Your task to perform on an android device: open app "Messages" (install if not already installed) and go to login screen Image 0: 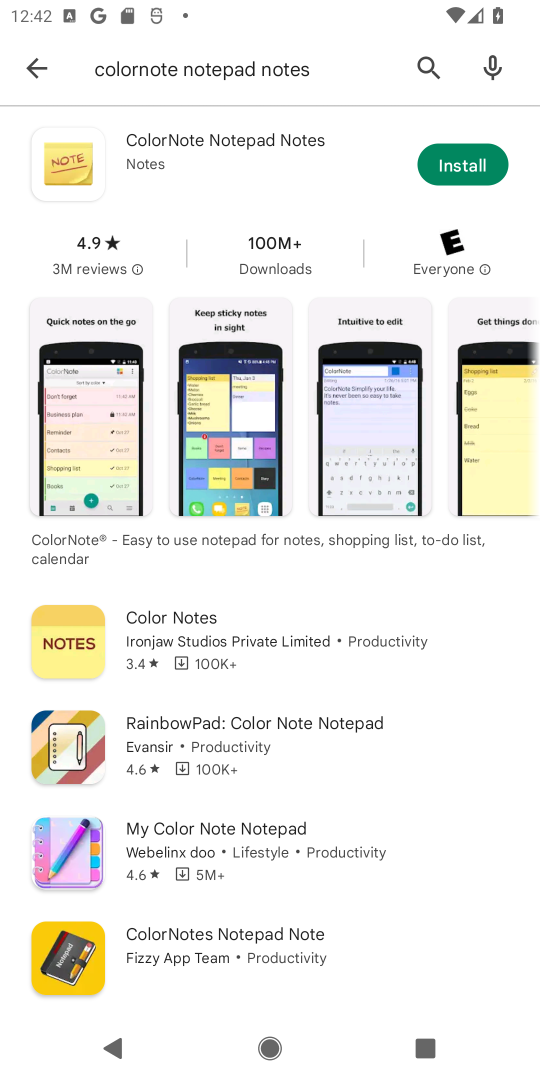
Step 0: click (422, 66)
Your task to perform on an android device: open app "Messages" (install if not already installed) and go to login screen Image 1: 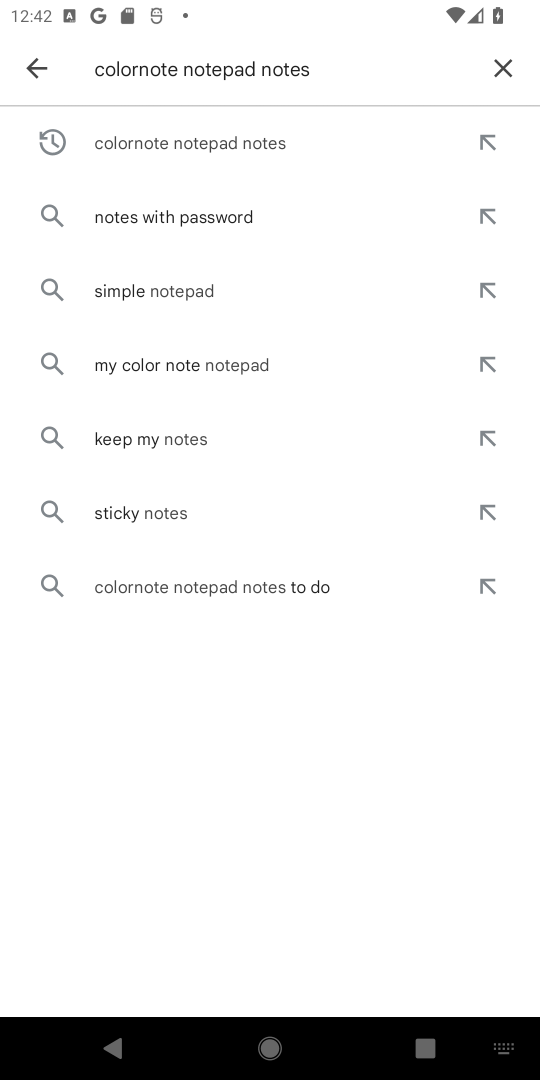
Step 1: click (491, 69)
Your task to perform on an android device: open app "Messages" (install if not already installed) and go to login screen Image 2: 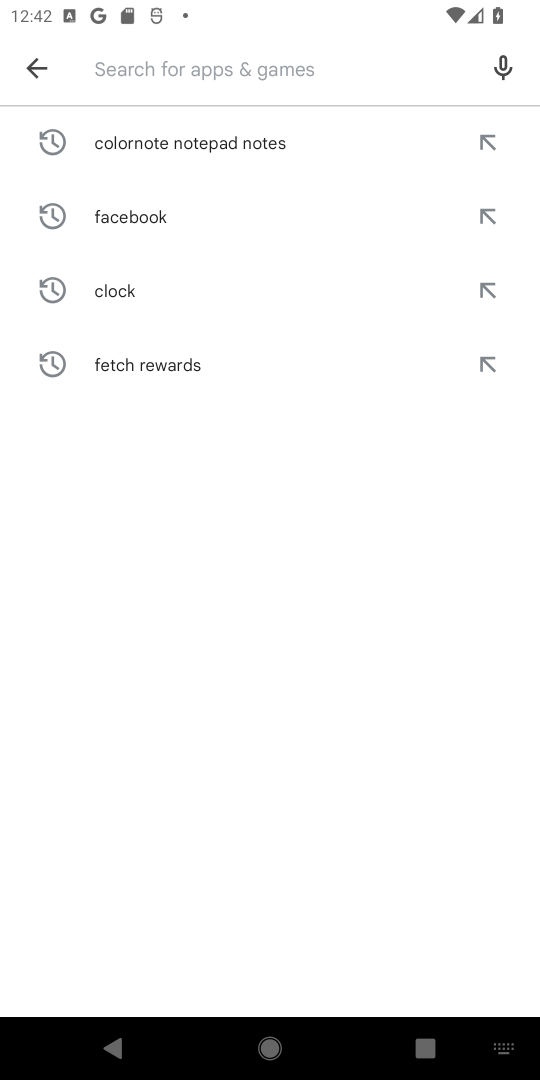
Step 2: type "Messages"
Your task to perform on an android device: open app "Messages" (install if not already installed) and go to login screen Image 3: 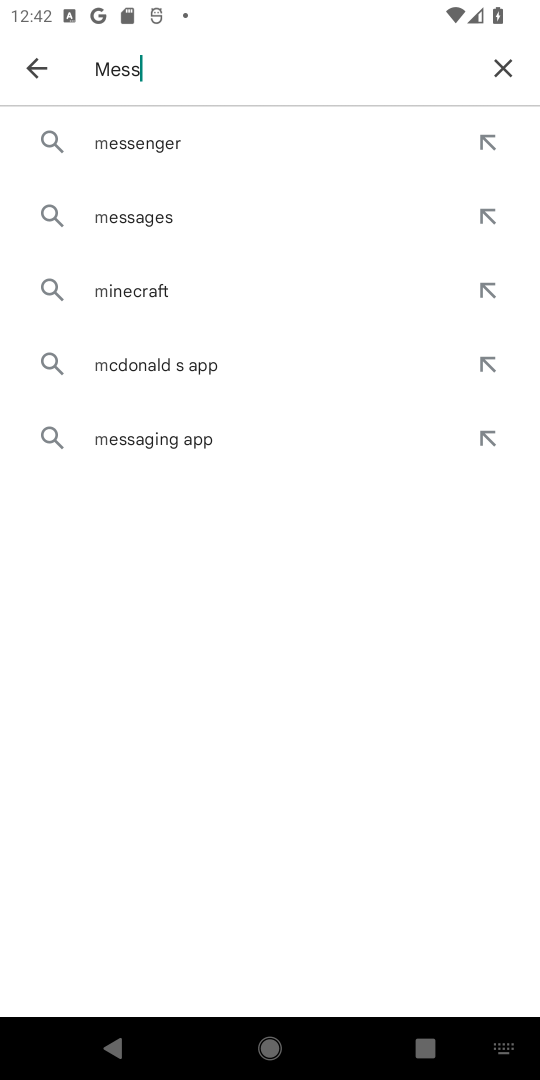
Step 3: type ""
Your task to perform on an android device: open app "Messages" (install if not already installed) and go to login screen Image 4: 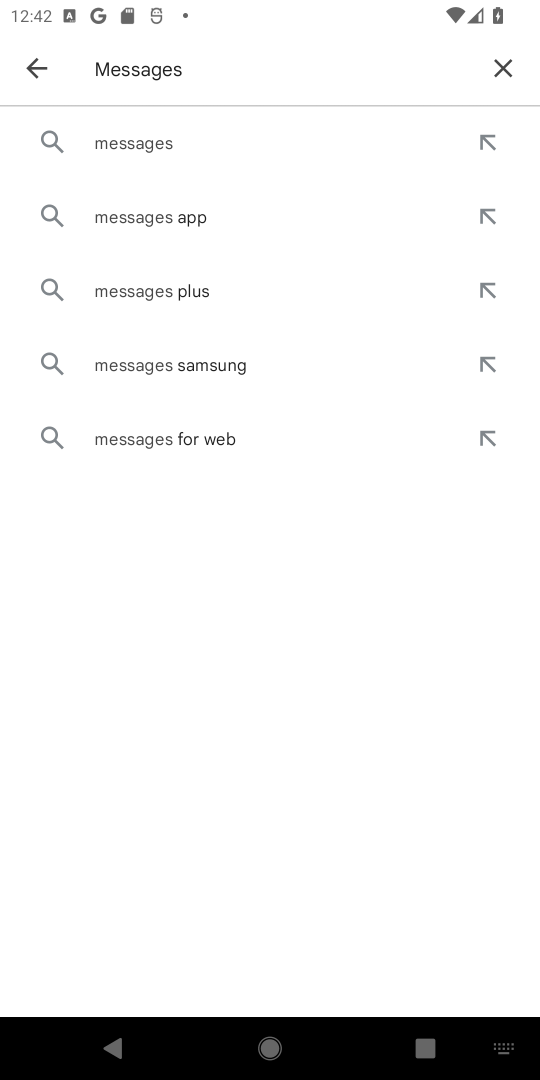
Step 4: click (142, 155)
Your task to perform on an android device: open app "Messages" (install if not already installed) and go to login screen Image 5: 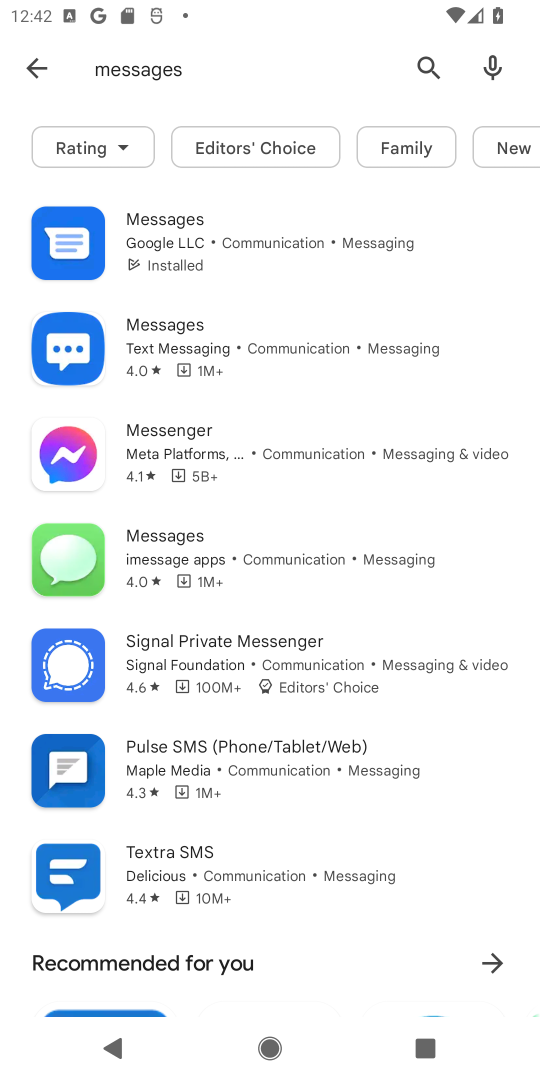
Step 5: click (201, 229)
Your task to perform on an android device: open app "Messages" (install if not already installed) and go to login screen Image 6: 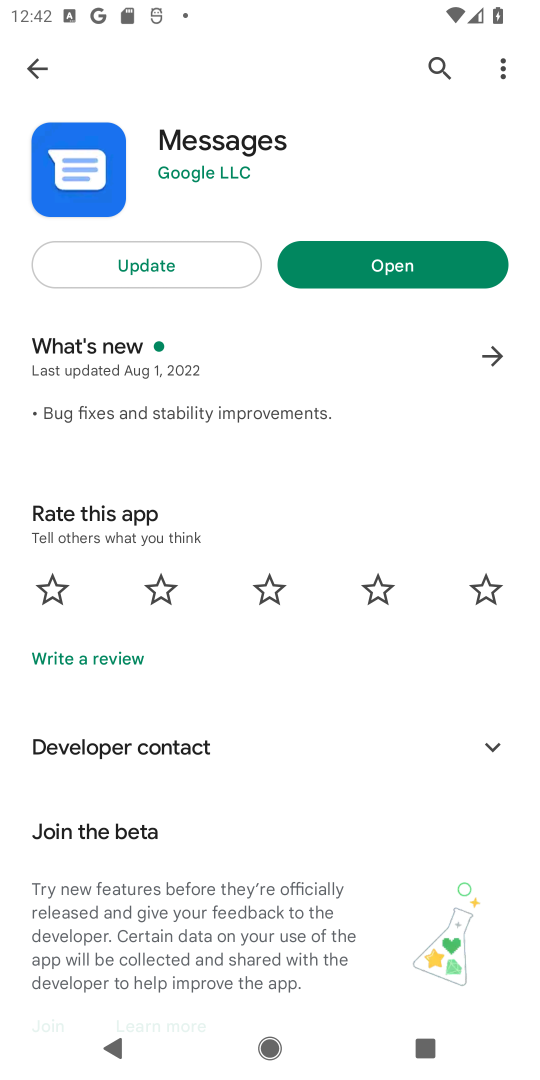
Step 6: click (358, 275)
Your task to perform on an android device: open app "Messages" (install if not already installed) and go to login screen Image 7: 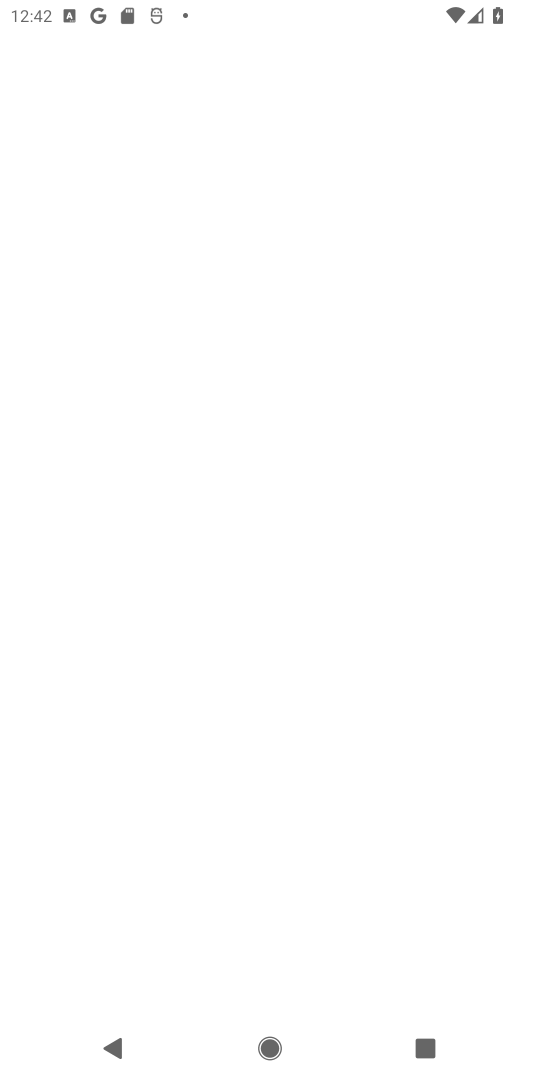
Step 7: task complete